Your task to perform on an android device: add a contact in the contacts app Image 0: 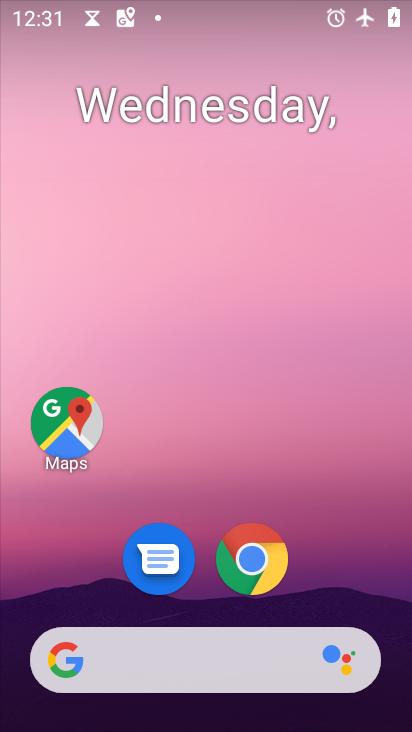
Step 0: drag from (382, 615) to (299, 101)
Your task to perform on an android device: add a contact in the contacts app Image 1: 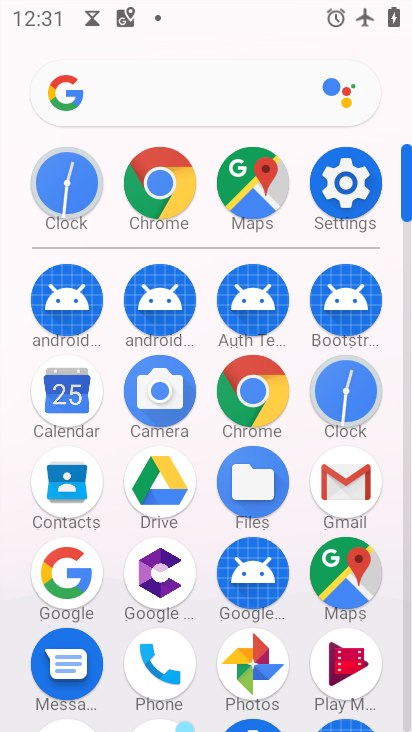
Step 1: click (150, 669)
Your task to perform on an android device: add a contact in the contacts app Image 2: 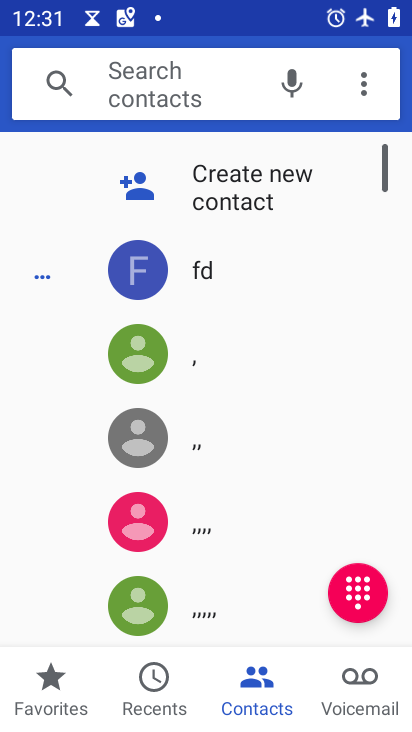
Step 2: click (226, 182)
Your task to perform on an android device: add a contact in the contacts app Image 3: 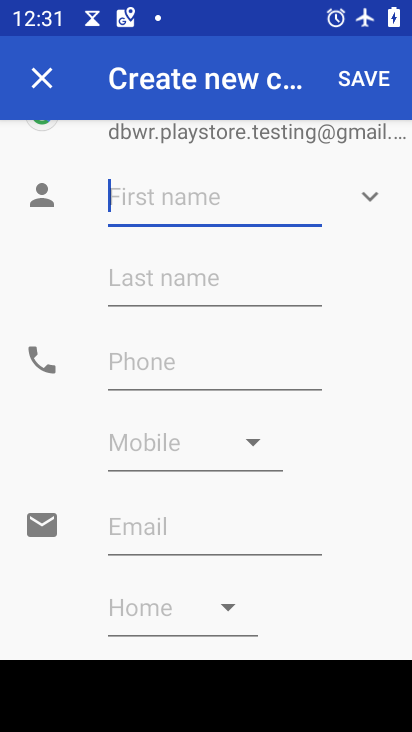
Step 3: type "trtrttr"
Your task to perform on an android device: add a contact in the contacts app Image 4: 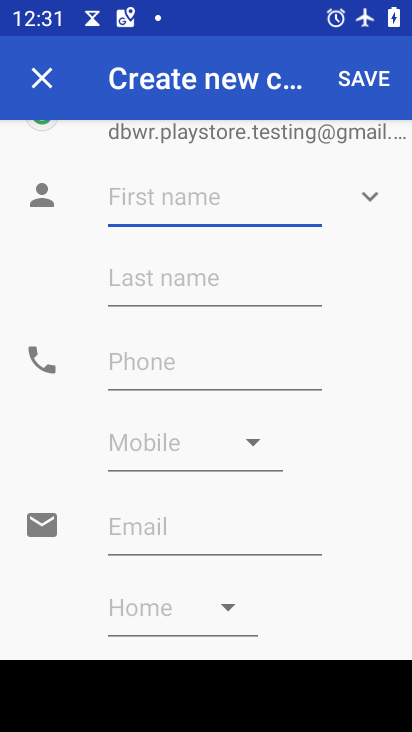
Step 4: click (147, 373)
Your task to perform on an android device: add a contact in the contacts app Image 5: 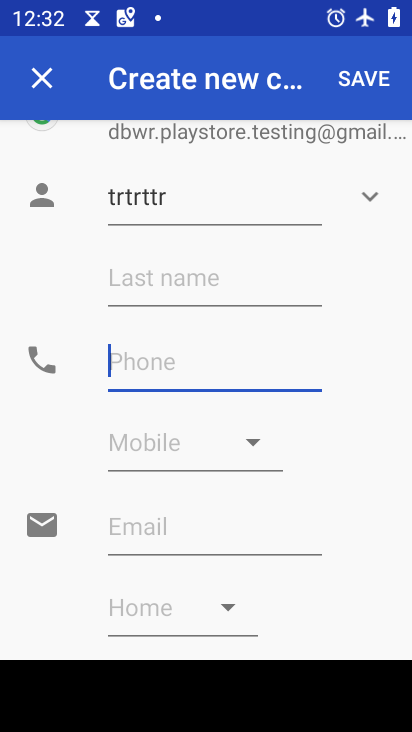
Step 5: type "46464646"
Your task to perform on an android device: add a contact in the contacts app Image 6: 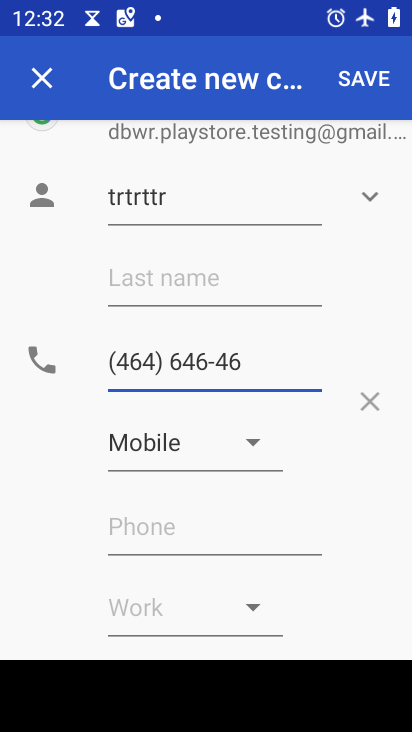
Step 6: click (371, 83)
Your task to perform on an android device: add a contact in the contacts app Image 7: 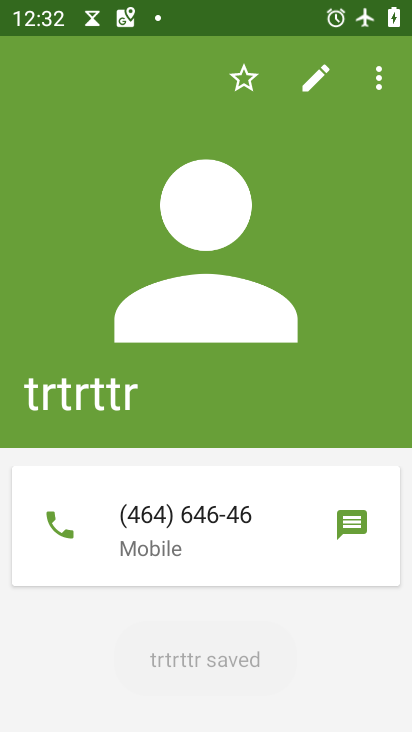
Step 7: task complete